Your task to perform on an android device: open chrome and create a bookmark for the current page Image 0: 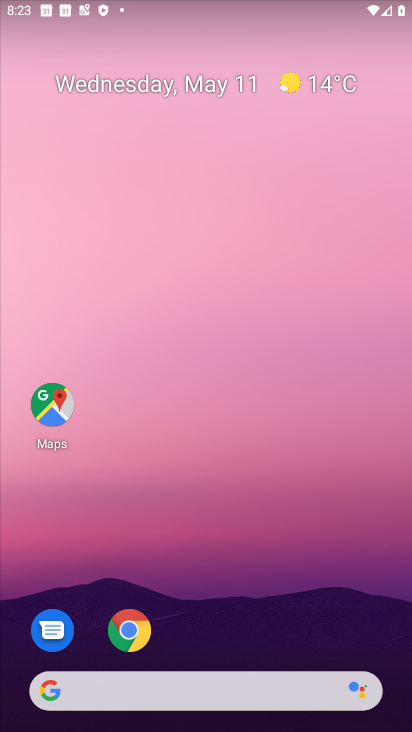
Step 0: click (129, 612)
Your task to perform on an android device: open chrome and create a bookmark for the current page Image 1: 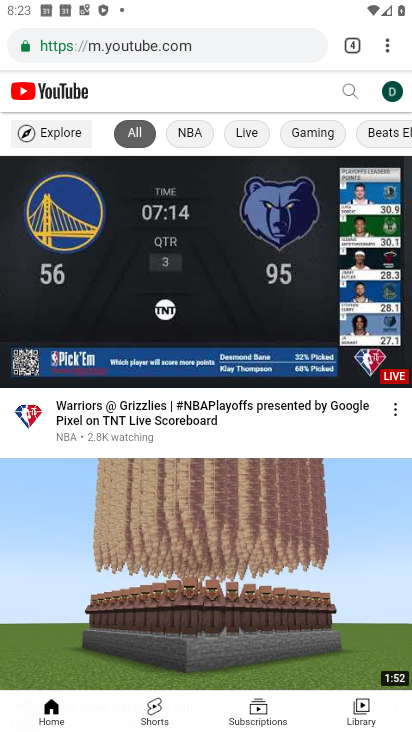
Step 1: click (387, 46)
Your task to perform on an android device: open chrome and create a bookmark for the current page Image 2: 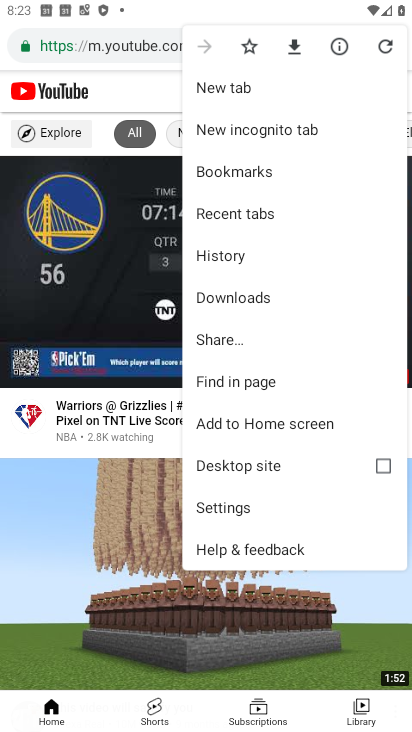
Step 2: click (241, 48)
Your task to perform on an android device: open chrome and create a bookmark for the current page Image 3: 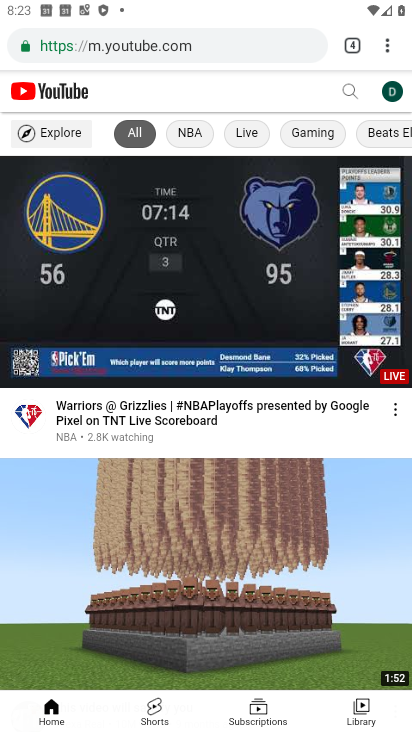
Step 3: task complete